Your task to perform on an android device: Go to notification settings Image 0: 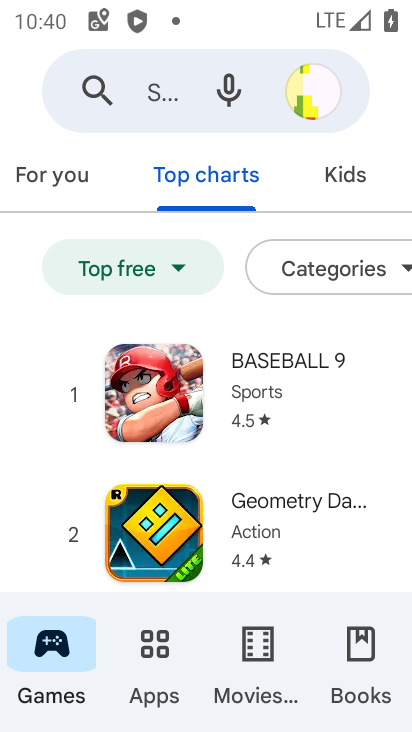
Step 0: press home button
Your task to perform on an android device: Go to notification settings Image 1: 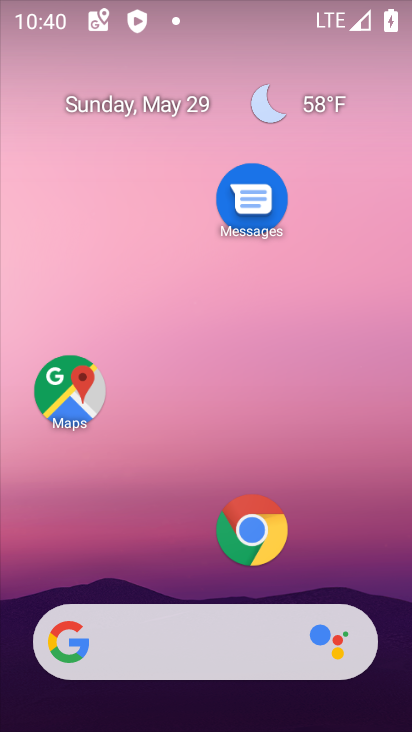
Step 1: drag from (165, 506) to (280, 11)
Your task to perform on an android device: Go to notification settings Image 2: 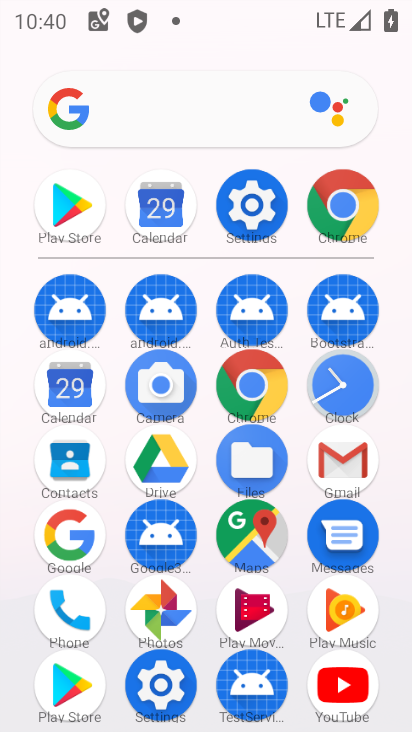
Step 2: click (253, 212)
Your task to perform on an android device: Go to notification settings Image 3: 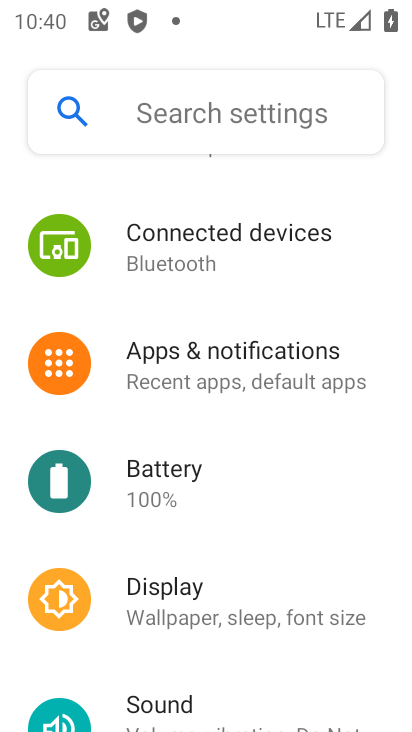
Step 3: click (247, 378)
Your task to perform on an android device: Go to notification settings Image 4: 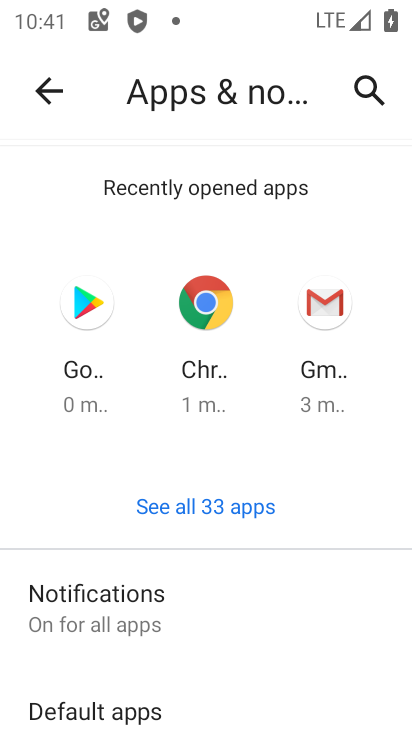
Step 4: click (175, 629)
Your task to perform on an android device: Go to notification settings Image 5: 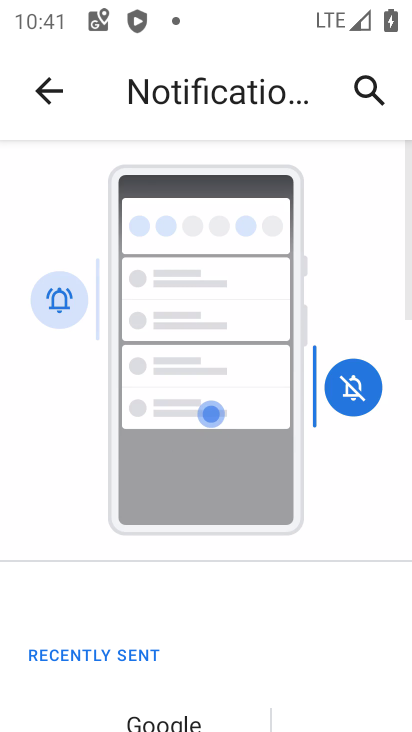
Step 5: task complete